Your task to perform on an android device: What is the news today? Image 0: 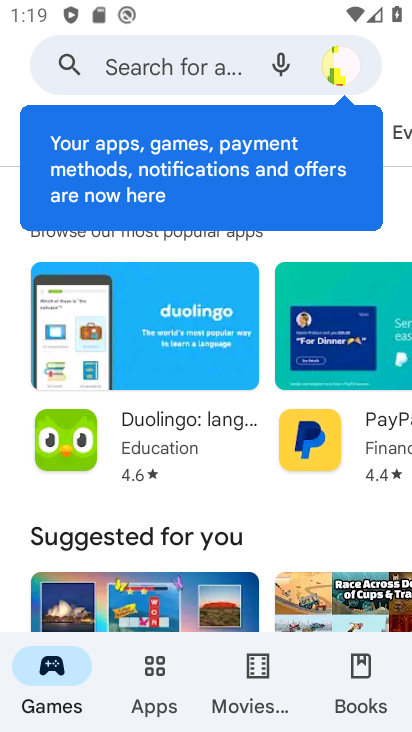
Step 0: press home button
Your task to perform on an android device: What is the news today? Image 1: 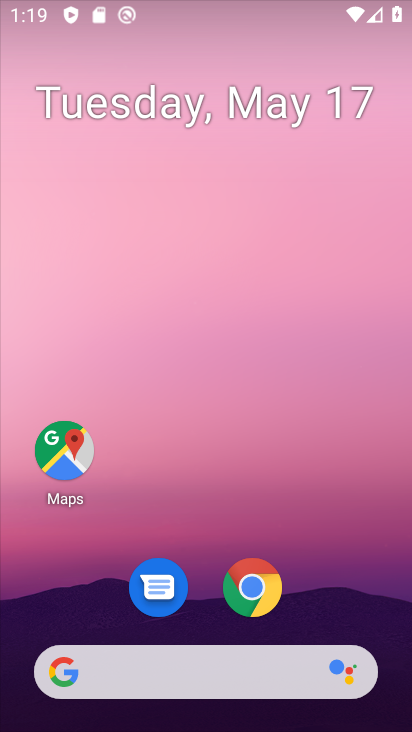
Step 1: drag from (363, 564) to (330, 253)
Your task to perform on an android device: What is the news today? Image 2: 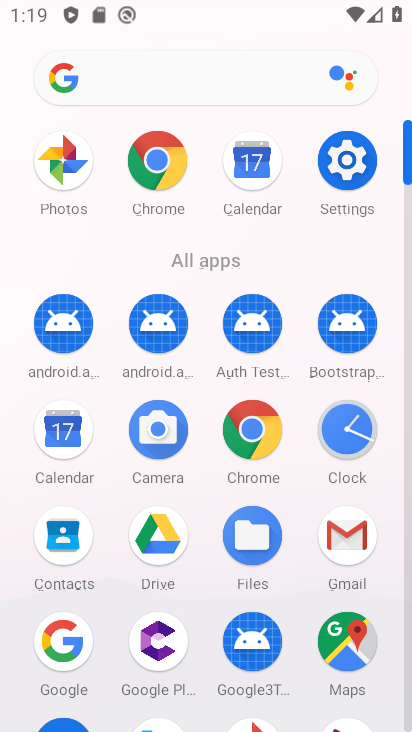
Step 2: click (242, 432)
Your task to perform on an android device: What is the news today? Image 3: 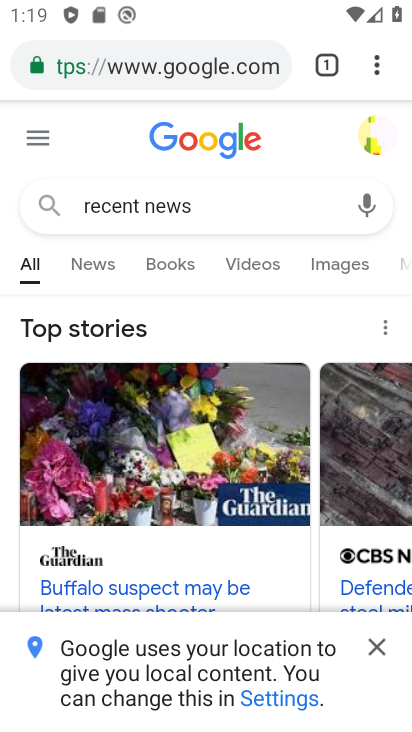
Step 3: click (209, 70)
Your task to perform on an android device: What is the news today? Image 4: 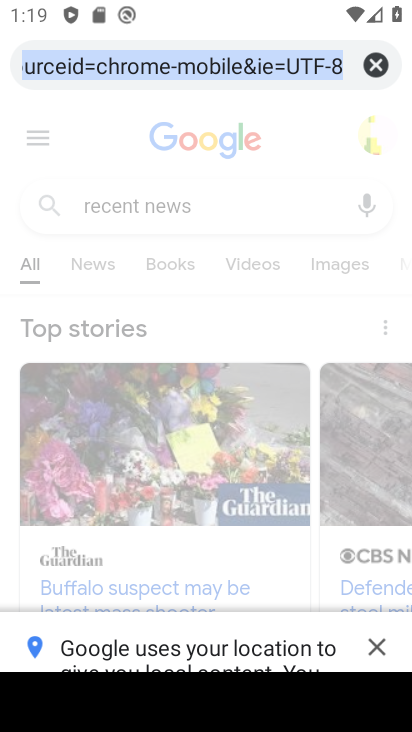
Step 4: click (379, 67)
Your task to perform on an android device: What is the news today? Image 5: 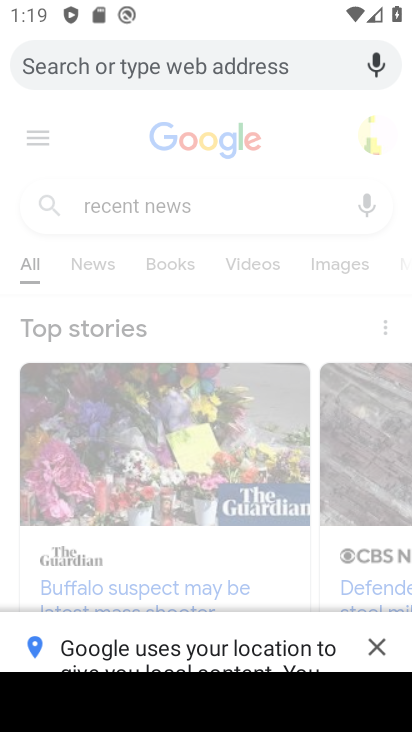
Step 5: type "what is the news today"
Your task to perform on an android device: What is the news today? Image 6: 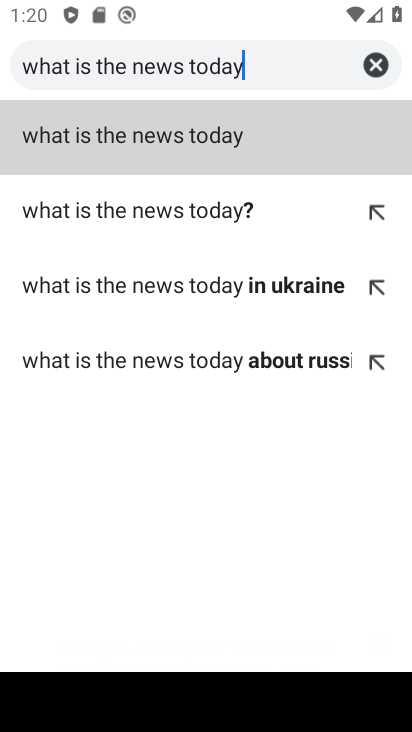
Step 6: click (207, 139)
Your task to perform on an android device: What is the news today? Image 7: 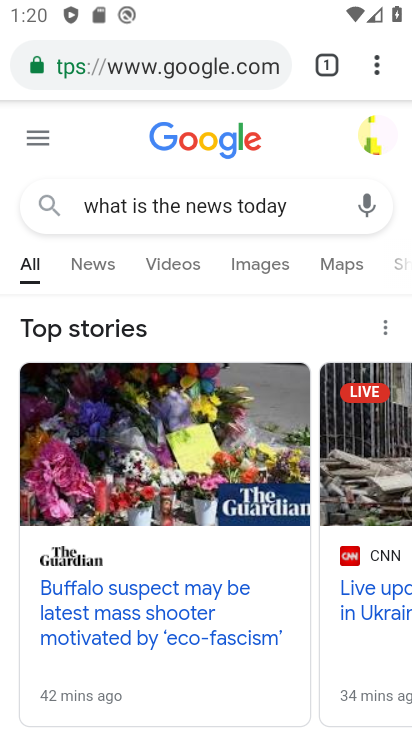
Step 7: task complete